Your task to perform on an android device: add a contact Image 0: 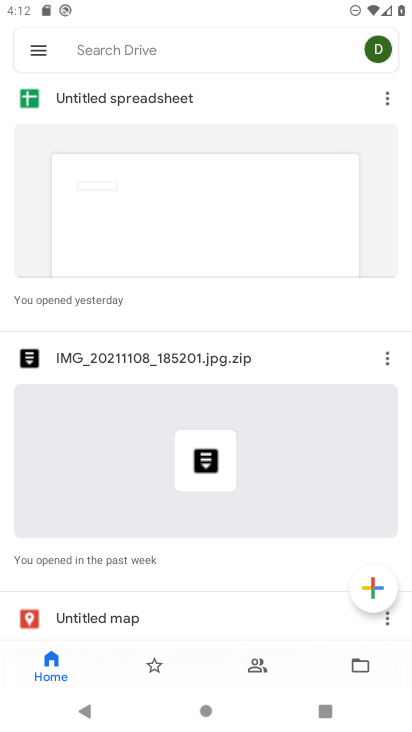
Step 0: press home button
Your task to perform on an android device: add a contact Image 1: 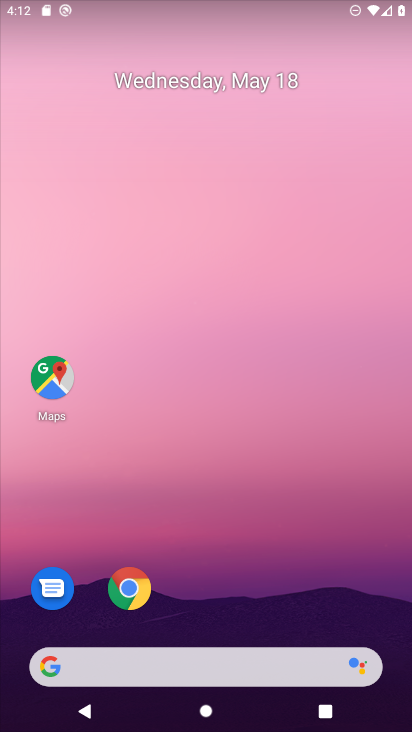
Step 1: drag from (245, 571) to (274, 112)
Your task to perform on an android device: add a contact Image 2: 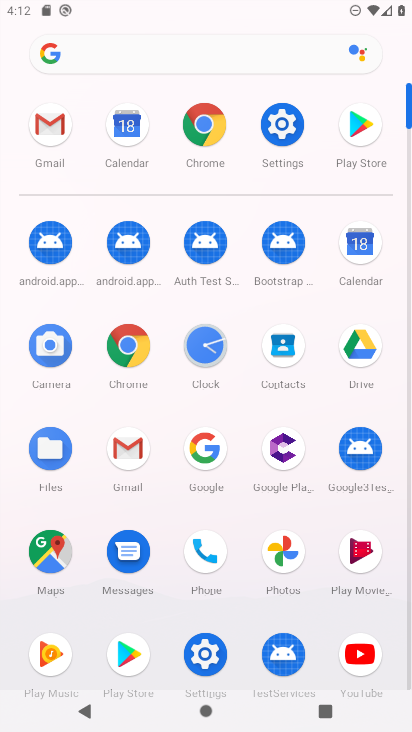
Step 2: click (273, 348)
Your task to perform on an android device: add a contact Image 3: 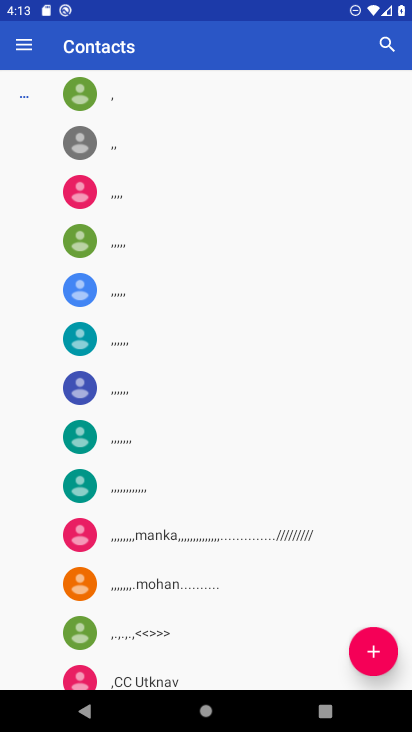
Step 3: click (386, 628)
Your task to perform on an android device: add a contact Image 4: 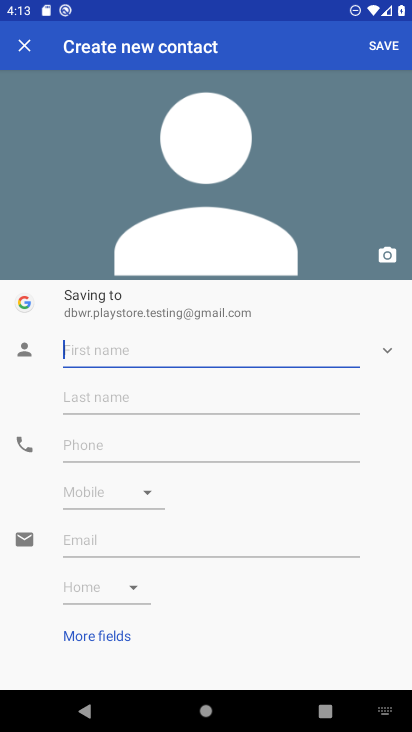
Step 4: type "zdsadas"
Your task to perform on an android device: add a contact Image 5: 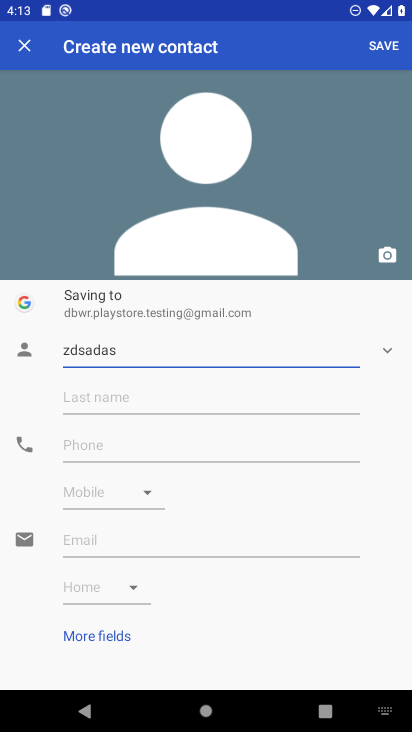
Step 5: click (177, 395)
Your task to perform on an android device: add a contact Image 6: 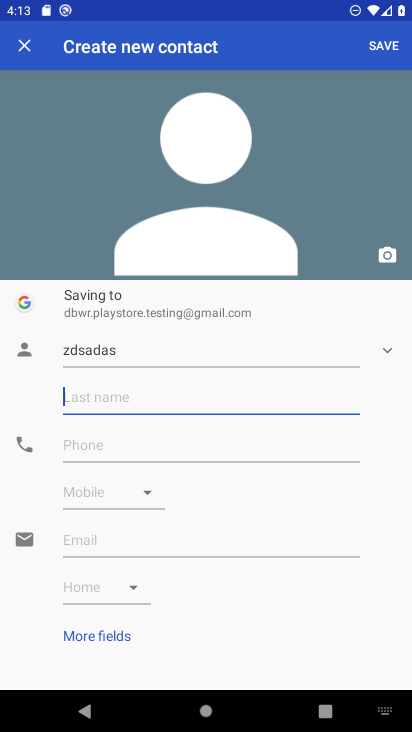
Step 6: type "sddcsad"
Your task to perform on an android device: add a contact Image 7: 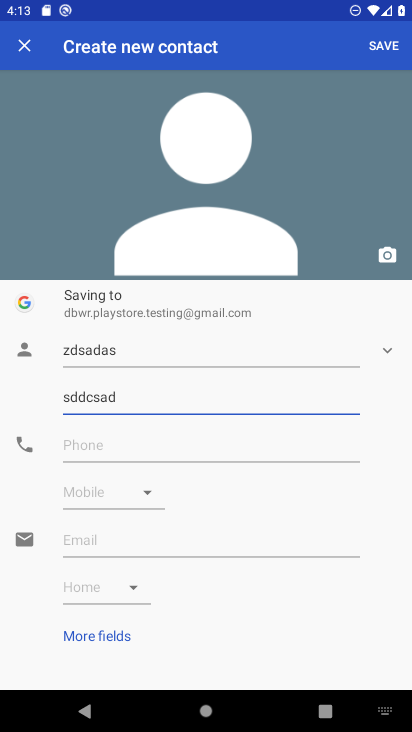
Step 7: click (213, 435)
Your task to perform on an android device: add a contact Image 8: 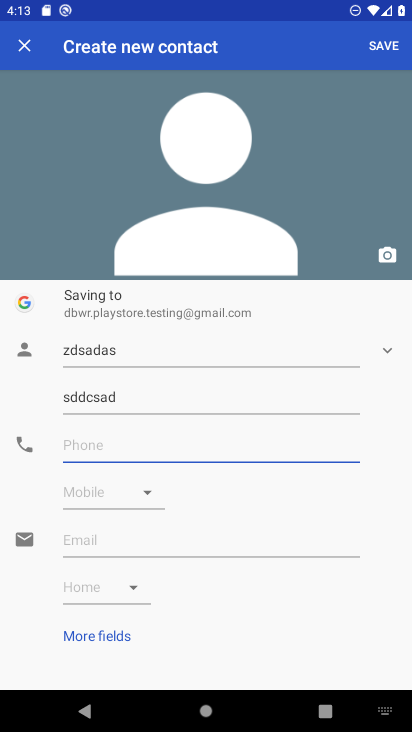
Step 8: type "34534534"
Your task to perform on an android device: add a contact Image 9: 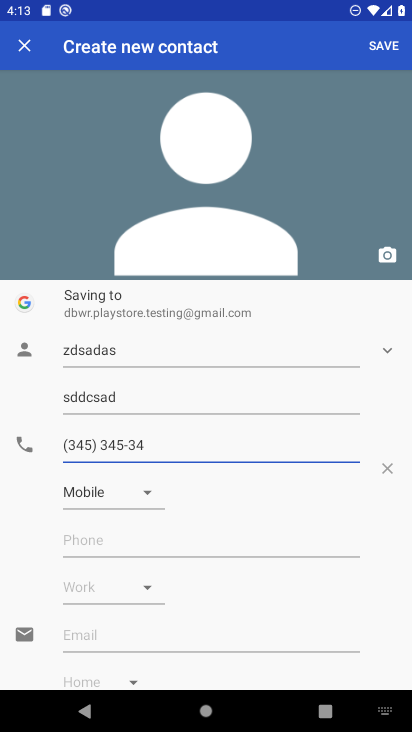
Step 9: click (387, 47)
Your task to perform on an android device: add a contact Image 10: 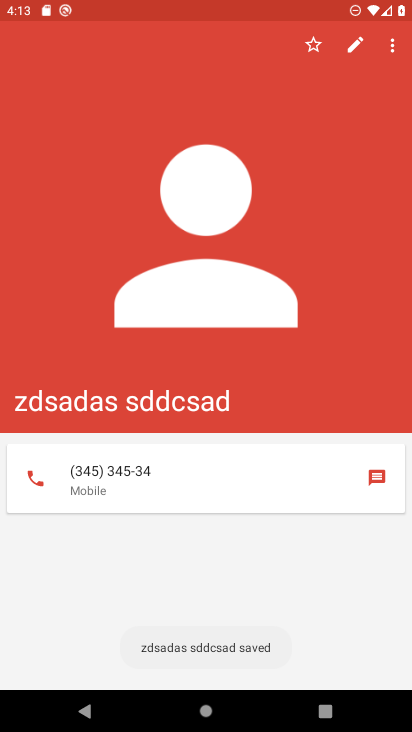
Step 10: task complete